Your task to perform on an android device: turn off location history Image 0: 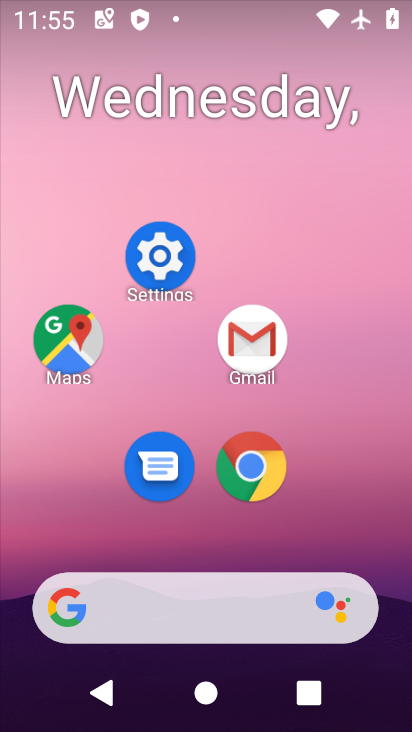
Step 0: drag from (191, 507) to (192, 252)
Your task to perform on an android device: turn off location history Image 1: 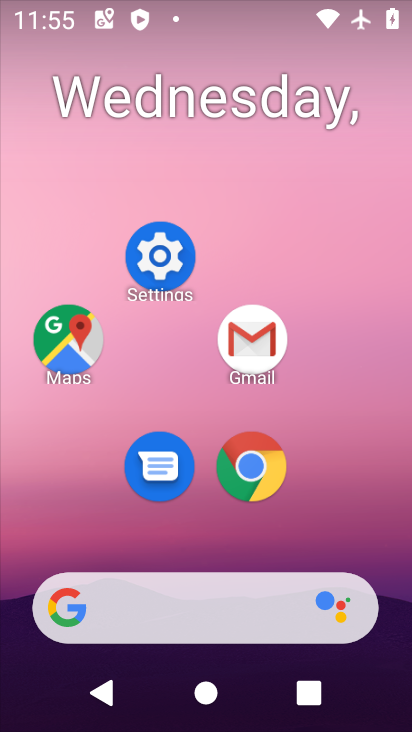
Step 1: click (159, 245)
Your task to perform on an android device: turn off location history Image 2: 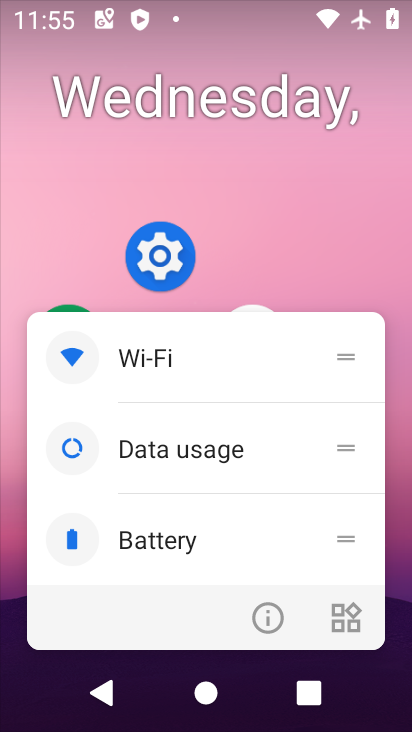
Step 2: click (249, 616)
Your task to perform on an android device: turn off location history Image 3: 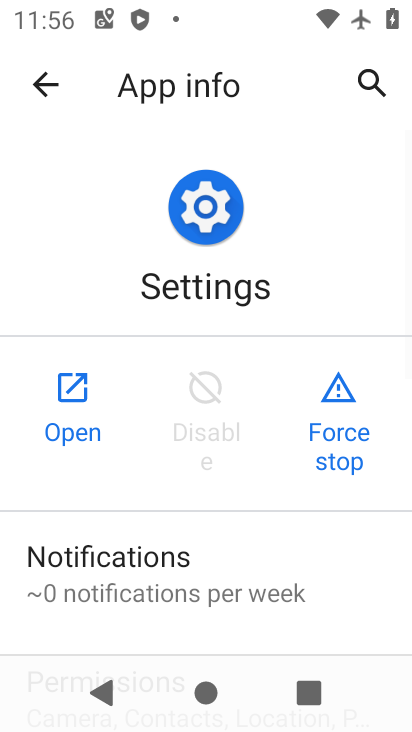
Step 3: click (76, 434)
Your task to perform on an android device: turn off location history Image 4: 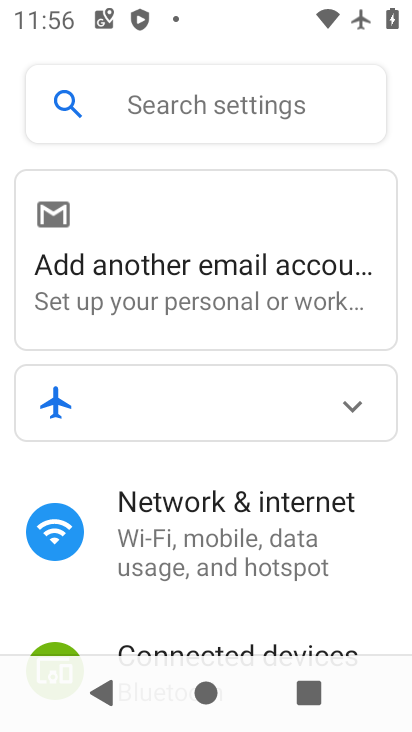
Step 4: drag from (220, 569) to (225, 161)
Your task to perform on an android device: turn off location history Image 5: 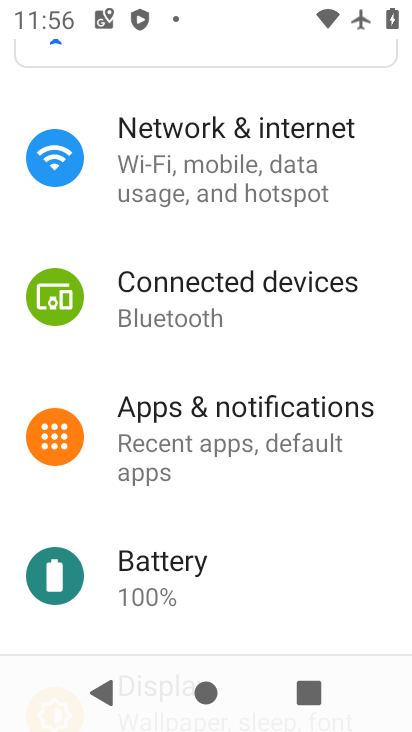
Step 5: drag from (233, 602) to (248, 303)
Your task to perform on an android device: turn off location history Image 6: 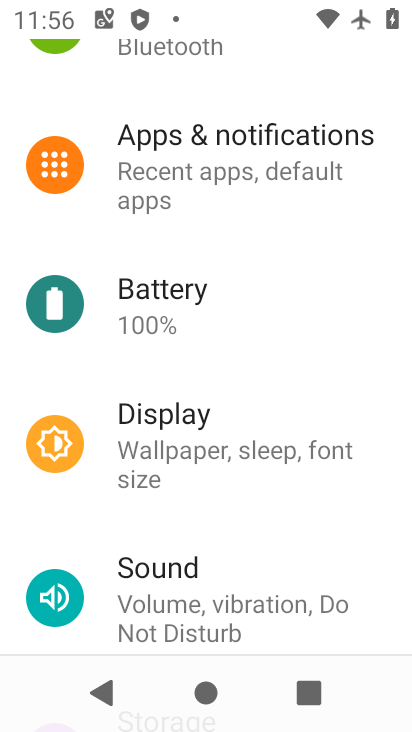
Step 6: drag from (218, 559) to (216, 338)
Your task to perform on an android device: turn off location history Image 7: 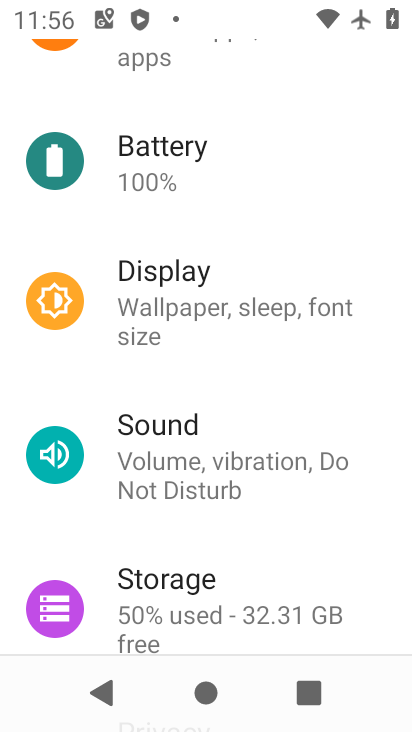
Step 7: drag from (247, 497) to (279, 176)
Your task to perform on an android device: turn off location history Image 8: 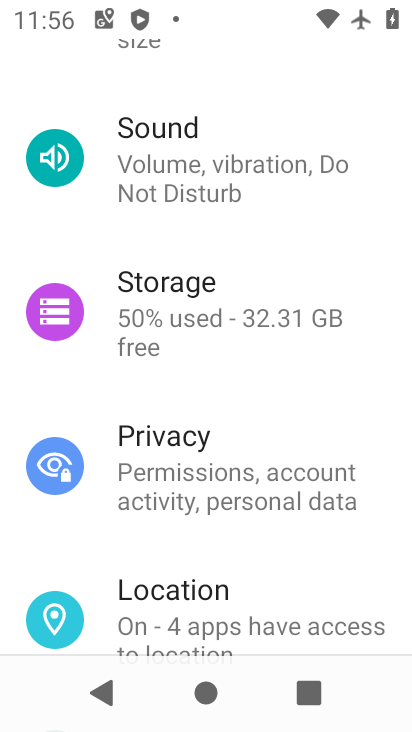
Step 8: click (222, 589)
Your task to perform on an android device: turn off location history Image 9: 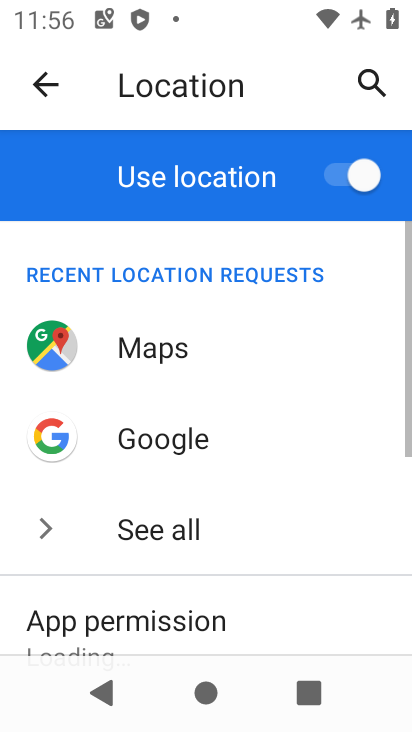
Step 9: click (171, 647)
Your task to perform on an android device: turn off location history Image 10: 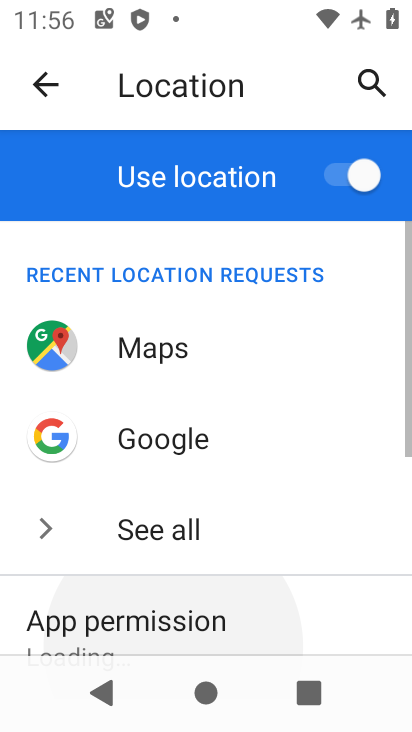
Step 10: drag from (176, 645) to (241, 131)
Your task to perform on an android device: turn off location history Image 11: 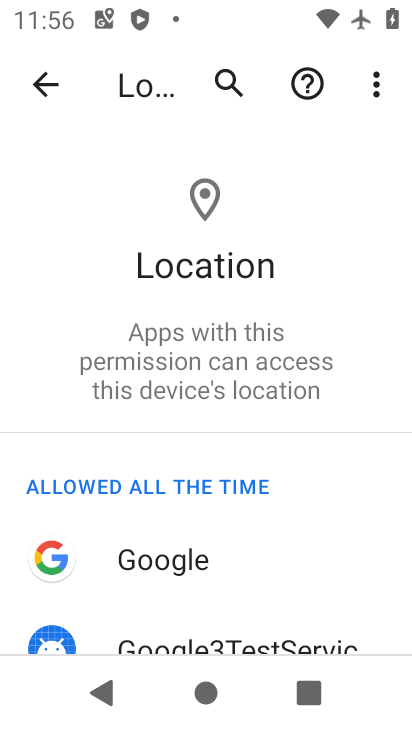
Step 11: click (39, 80)
Your task to perform on an android device: turn off location history Image 12: 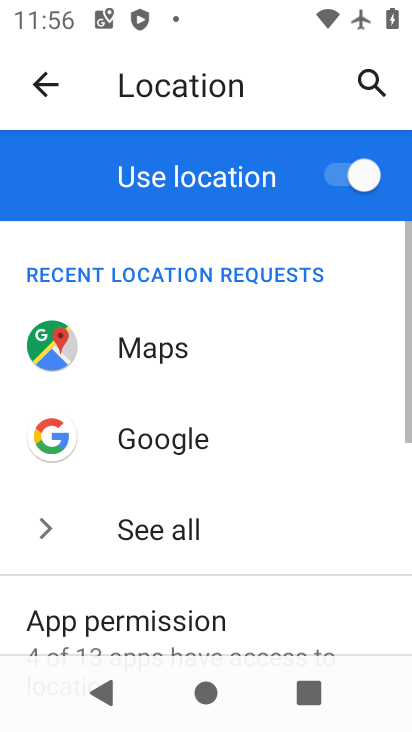
Step 12: drag from (225, 503) to (231, 325)
Your task to perform on an android device: turn off location history Image 13: 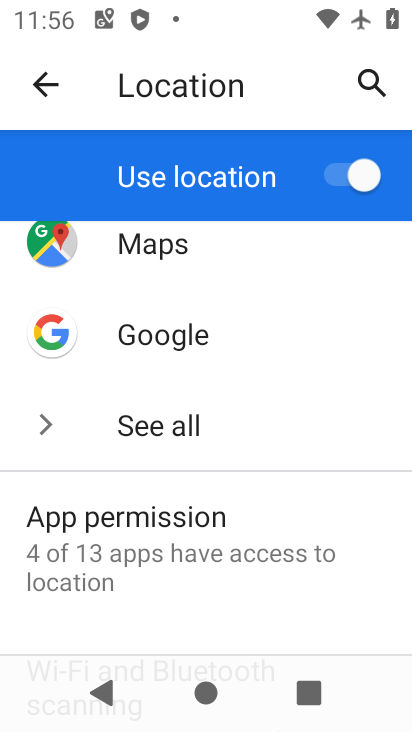
Step 13: drag from (192, 518) to (217, 76)
Your task to perform on an android device: turn off location history Image 14: 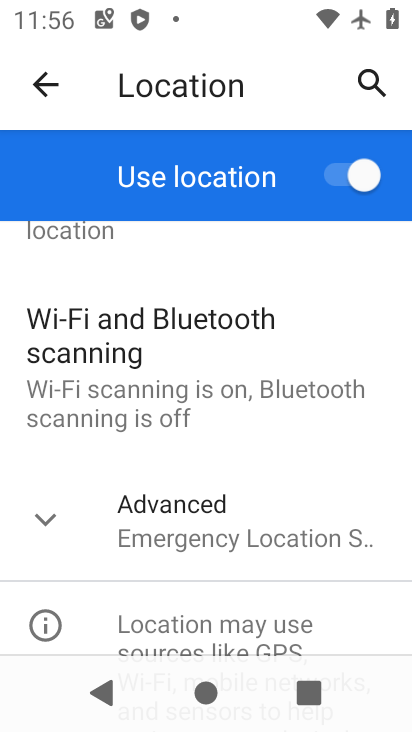
Step 14: click (158, 558)
Your task to perform on an android device: turn off location history Image 15: 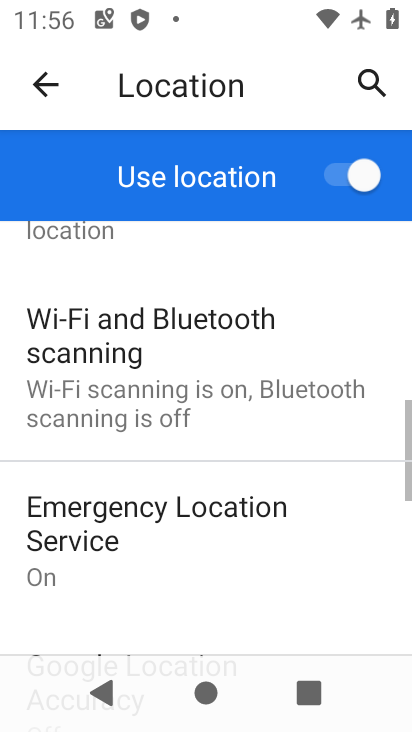
Step 15: drag from (154, 527) to (179, 171)
Your task to perform on an android device: turn off location history Image 16: 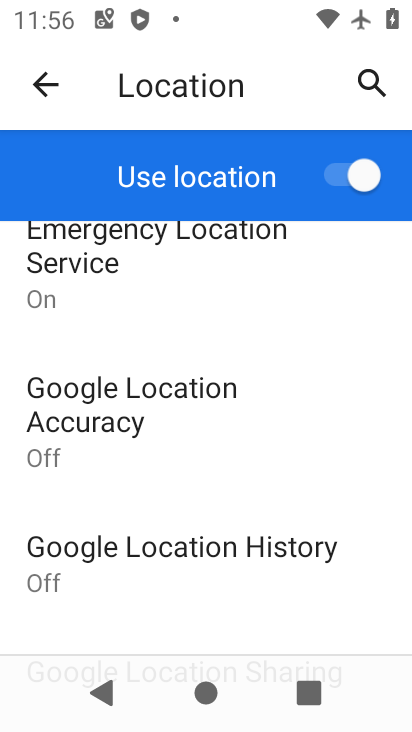
Step 16: drag from (217, 577) to (213, 394)
Your task to perform on an android device: turn off location history Image 17: 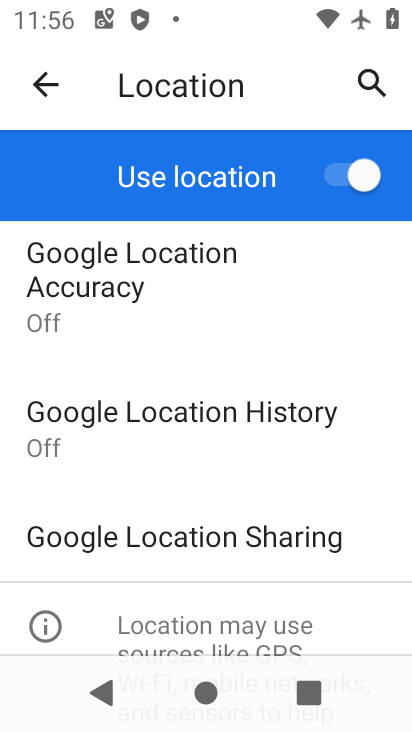
Step 17: click (149, 435)
Your task to perform on an android device: turn off location history Image 18: 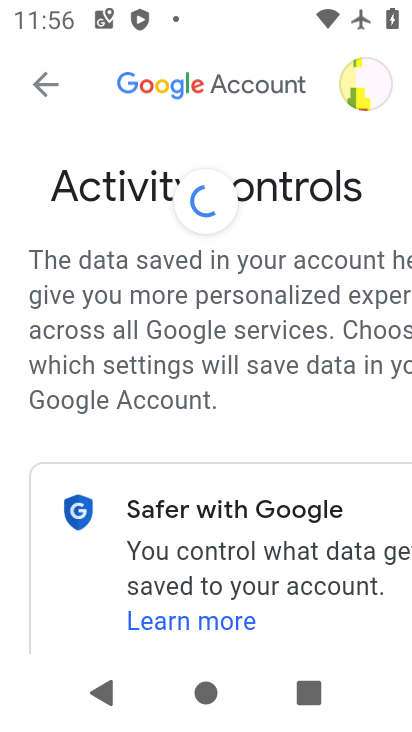
Step 18: drag from (248, 573) to (252, 429)
Your task to perform on an android device: turn off location history Image 19: 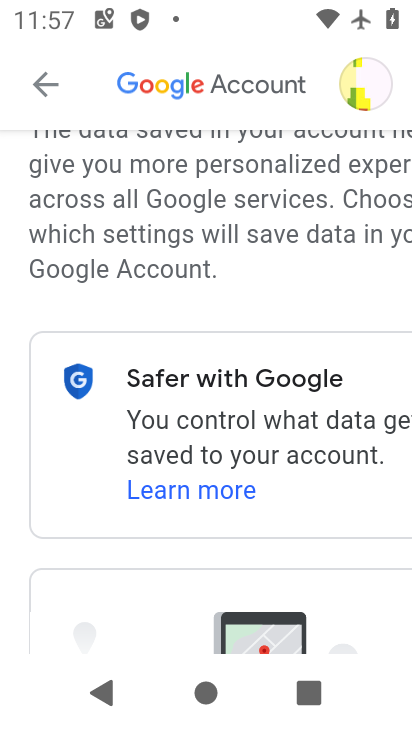
Step 19: drag from (230, 584) to (239, 226)
Your task to perform on an android device: turn off location history Image 20: 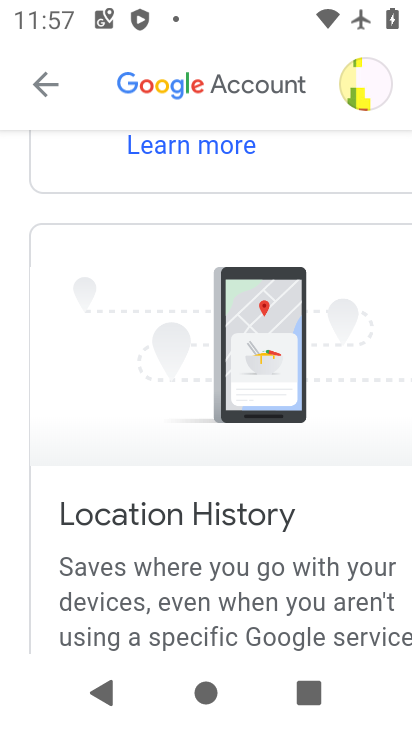
Step 20: drag from (203, 567) to (232, 188)
Your task to perform on an android device: turn off location history Image 21: 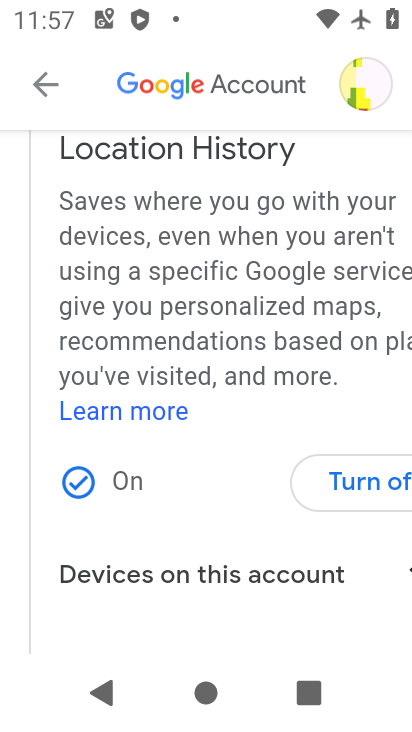
Step 21: drag from (225, 505) to (212, 254)
Your task to perform on an android device: turn off location history Image 22: 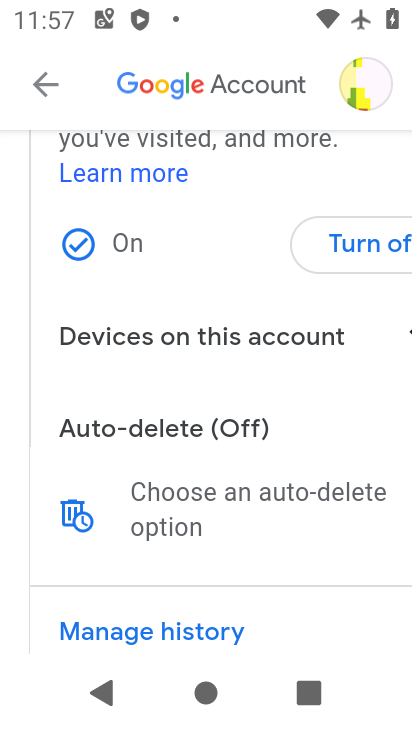
Step 22: drag from (245, 508) to (211, 148)
Your task to perform on an android device: turn off location history Image 23: 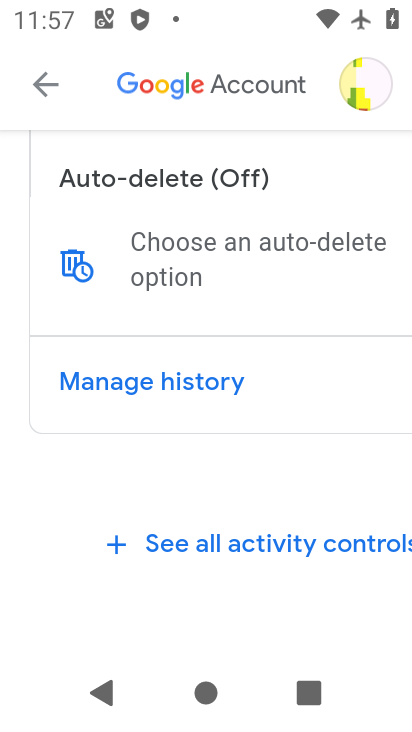
Step 23: drag from (203, 378) to (274, 661)
Your task to perform on an android device: turn off location history Image 24: 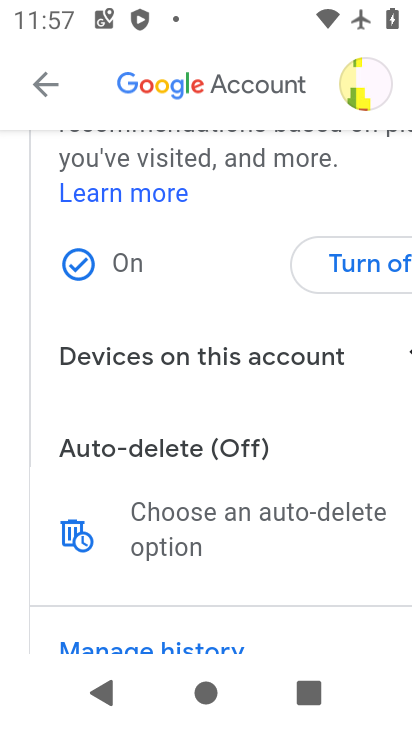
Step 24: click (341, 262)
Your task to perform on an android device: turn off location history Image 25: 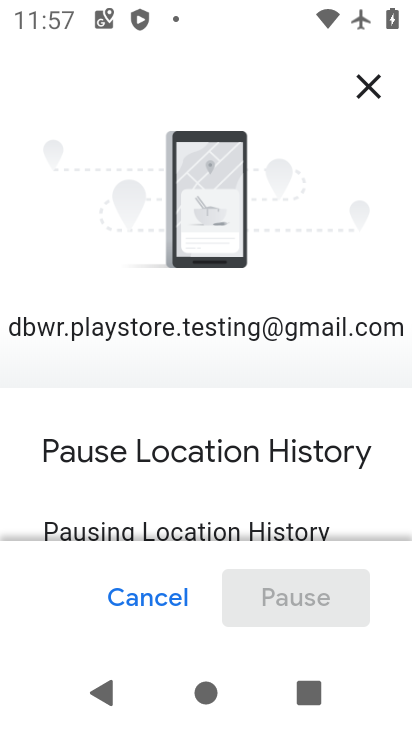
Step 25: drag from (231, 489) to (249, 264)
Your task to perform on an android device: turn off location history Image 26: 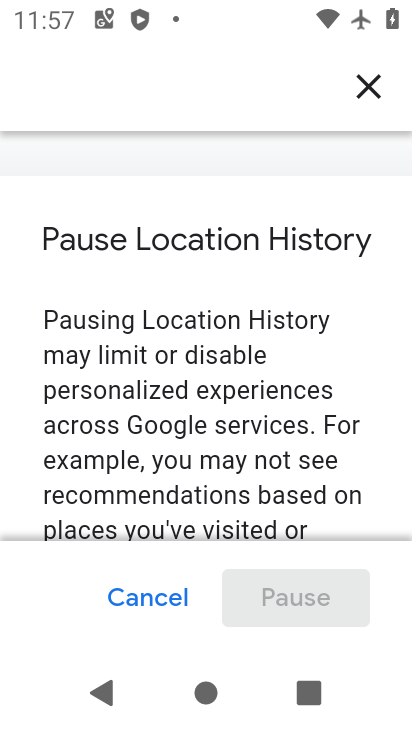
Step 26: drag from (188, 477) to (215, 178)
Your task to perform on an android device: turn off location history Image 27: 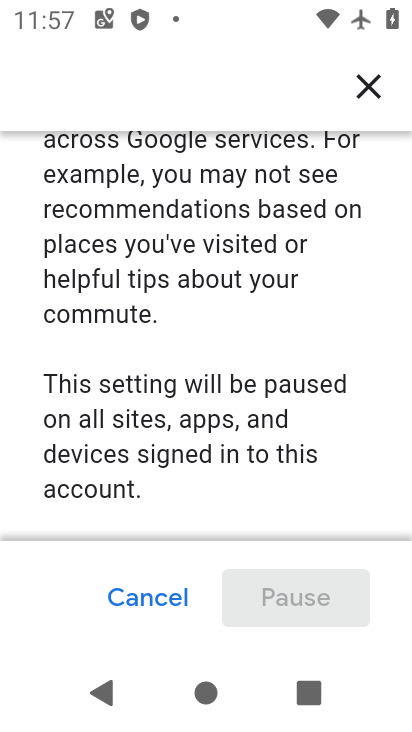
Step 27: drag from (194, 497) to (235, 243)
Your task to perform on an android device: turn off location history Image 28: 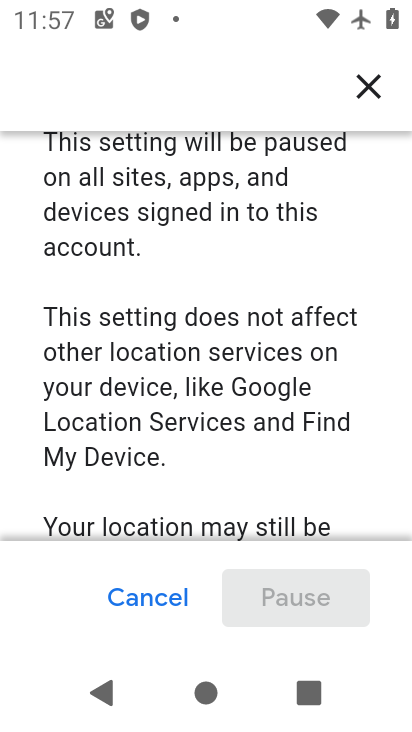
Step 28: drag from (191, 506) to (227, 279)
Your task to perform on an android device: turn off location history Image 29: 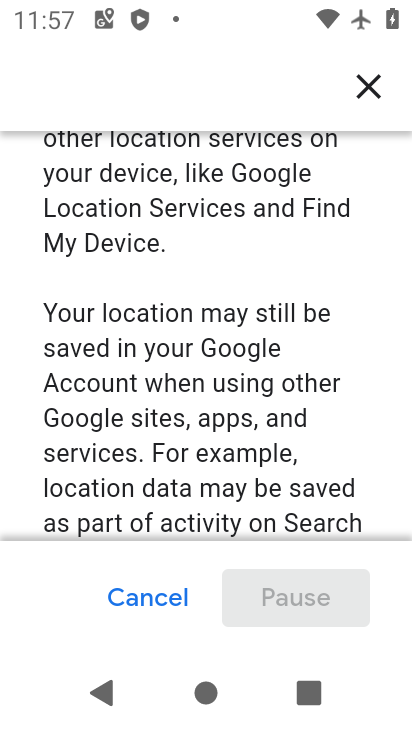
Step 29: drag from (184, 518) to (232, 177)
Your task to perform on an android device: turn off location history Image 30: 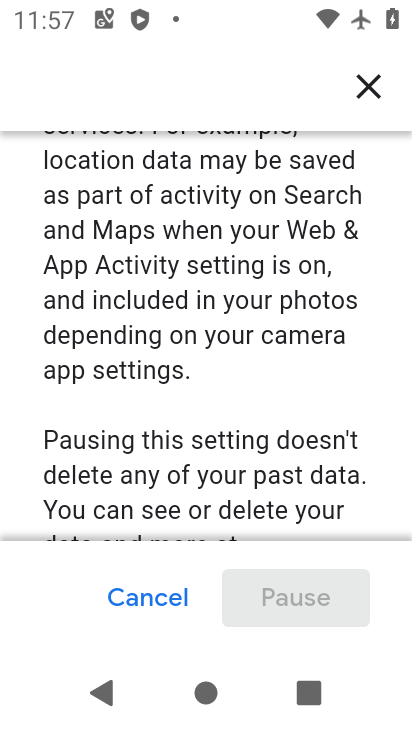
Step 30: drag from (232, 471) to (251, 128)
Your task to perform on an android device: turn off location history Image 31: 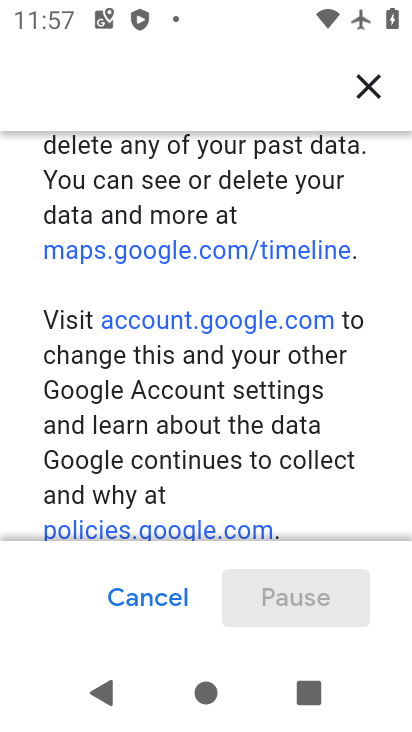
Step 31: drag from (180, 427) to (214, 152)
Your task to perform on an android device: turn off location history Image 32: 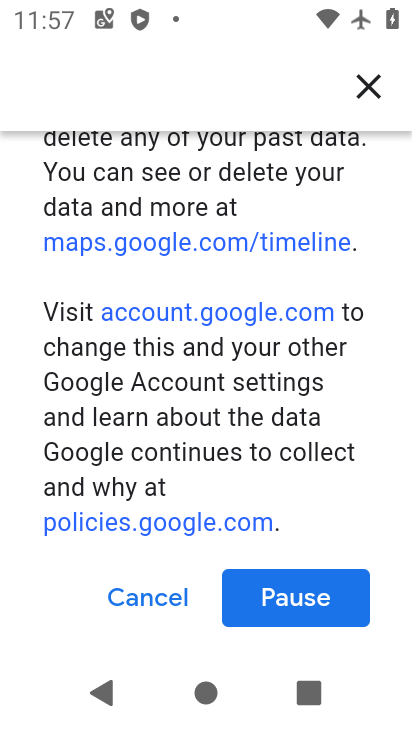
Step 32: drag from (172, 425) to (223, 179)
Your task to perform on an android device: turn off location history Image 33: 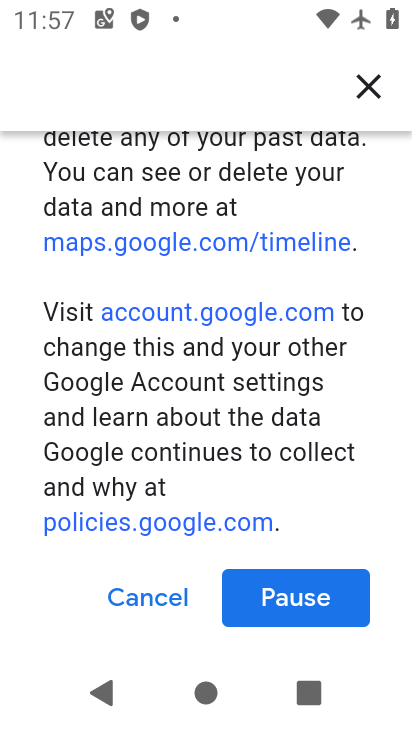
Step 33: drag from (179, 442) to (224, 126)
Your task to perform on an android device: turn off location history Image 34: 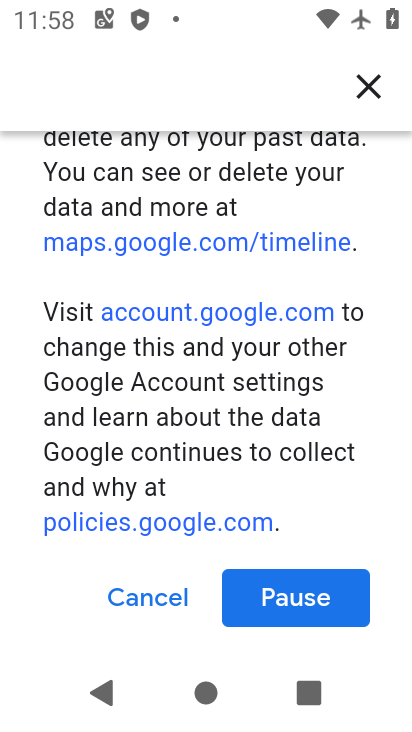
Step 34: drag from (194, 188) to (233, 445)
Your task to perform on an android device: turn off location history Image 35: 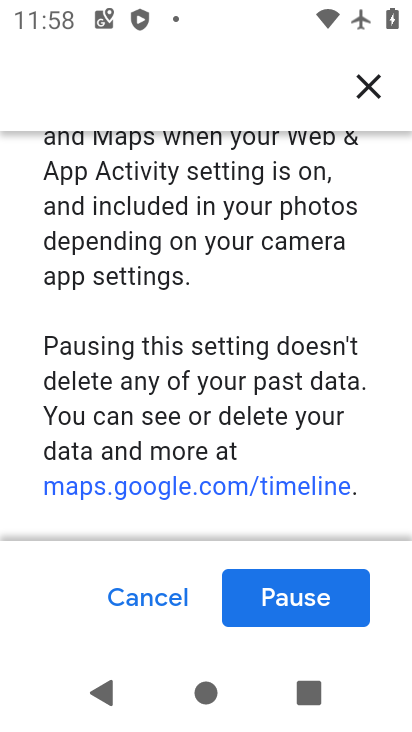
Step 35: drag from (226, 244) to (268, 570)
Your task to perform on an android device: turn off location history Image 36: 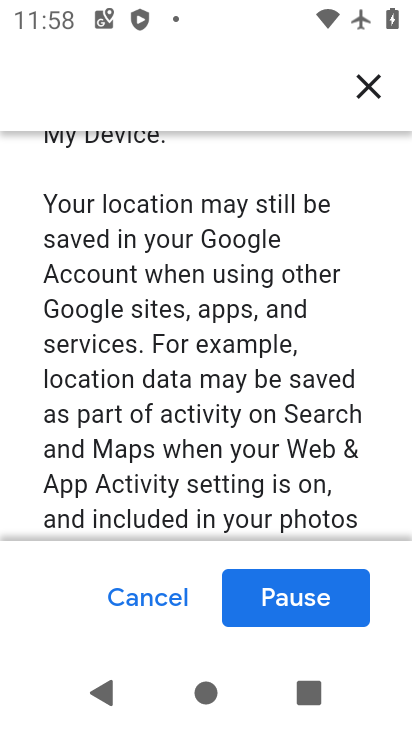
Step 36: drag from (181, 253) to (232, 476)
Your task to perform on an android device: turn off location history Image 37: 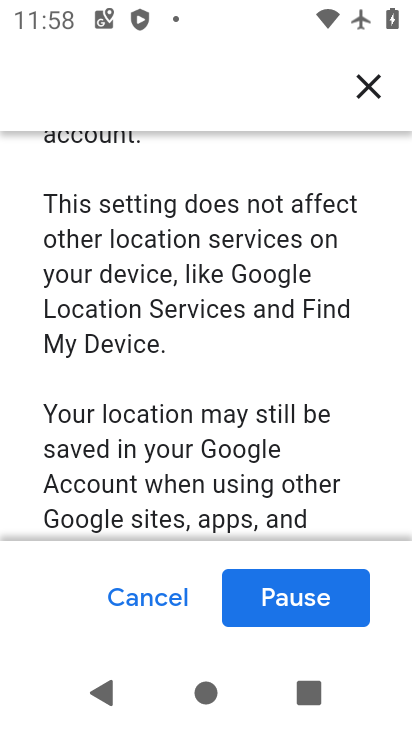
Step 37: drag from (232, 304) to (290, 648)
Your task to perform on an android device: turn off location history Image 38: 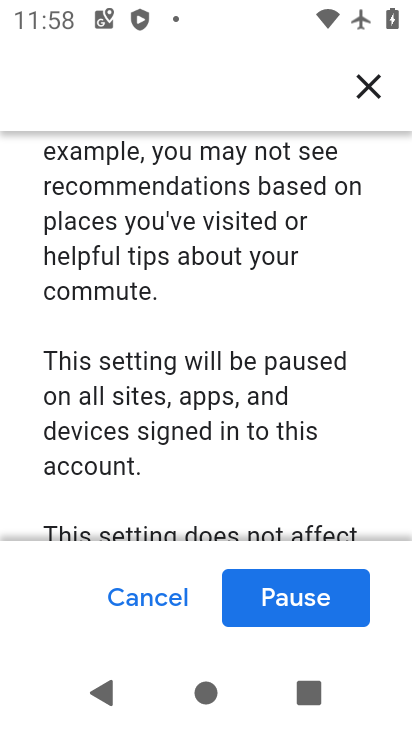
Step 38: click (275, 610)
Your task to perform on an android device: turn off location history Image 39: 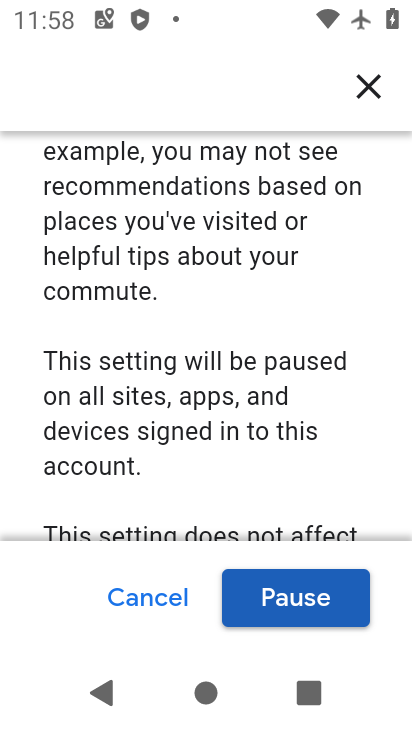
Step 39: click (287, 590)
Your task to perform on an android device: turn off location history Image 40: 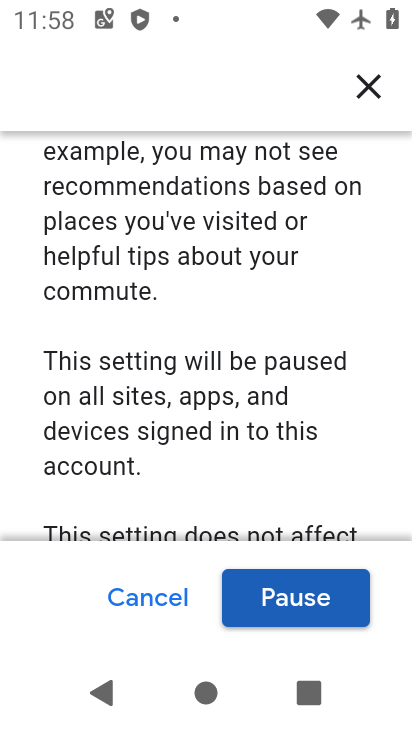
Step 40: click (275, 245)
Your task to perform on an android device: turn off location history Image 41: 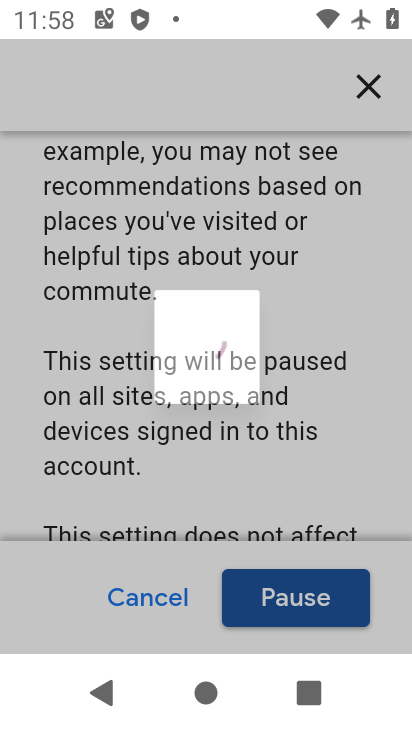
Step 41: drag from (146, 445) to (261, 139)
Your task to perform on an android device: turn off location history Image 42: 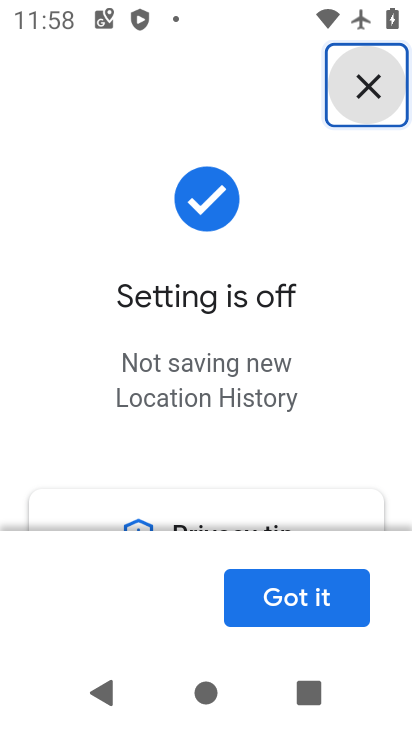
Step 42: drag from (175, 448) to (218, 286)
Your task to perform on an android device: turn off location history Image 43: 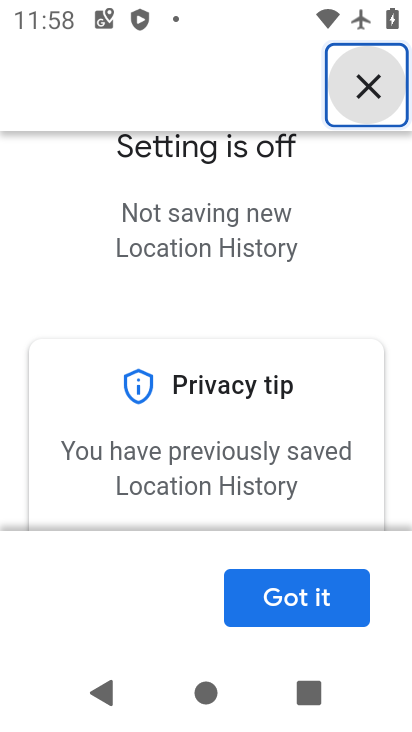
Step 43: click (310, 621)
Your task to perform on an android device: turn off location history Image 44: 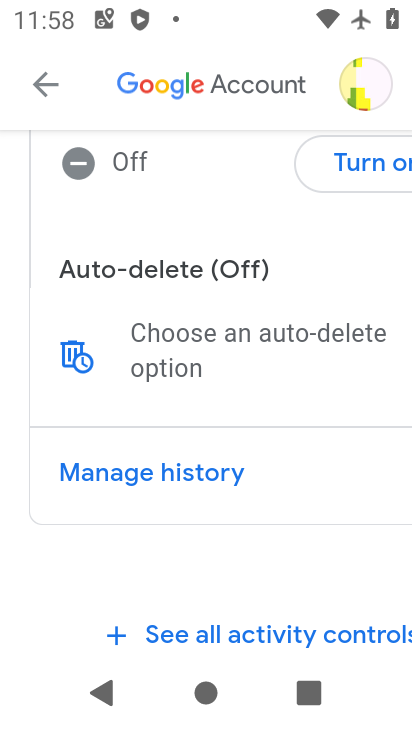
Step 44: task complete